Your task to perform on an android device: turn on improve location accuracy Image 0: 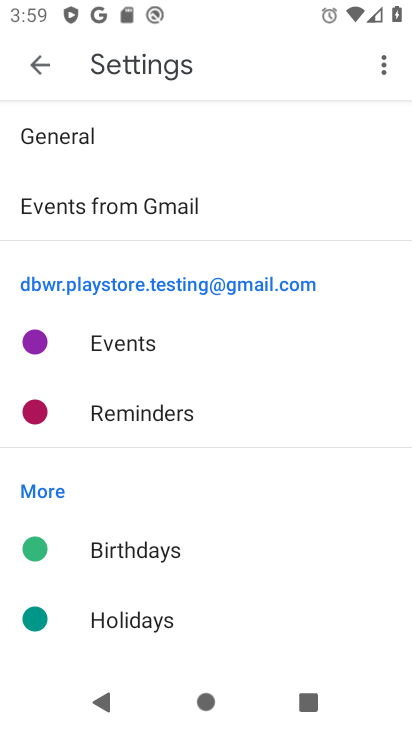
Step 0: press home button
Your task to perform on an android device: turn on improve location accuracy Image 1: 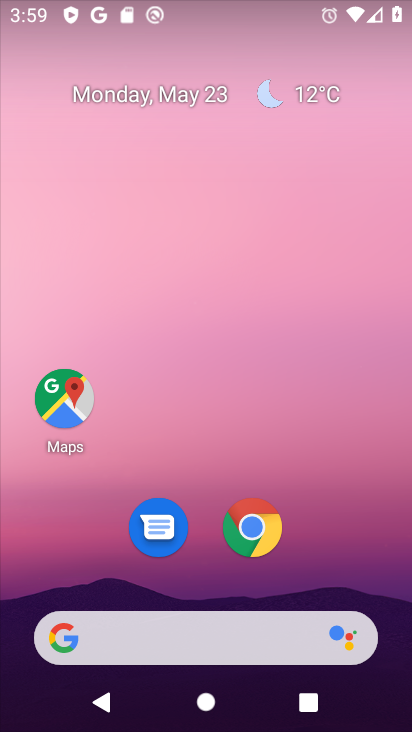
Step 1: drag from (216, 579) to (228, 92)
Your task to perform on an android device: turn on improve location accuracy Image 2: 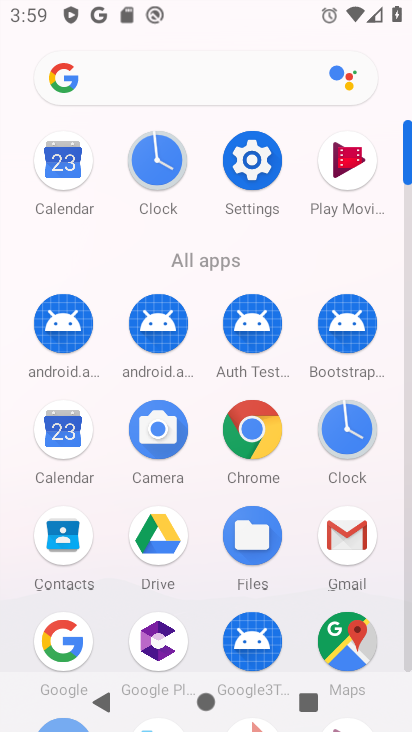
Step 2: drag from (207, 611) to (226, 102)
Your task to perform on an android device: turn on improve location accuracy Image 3: 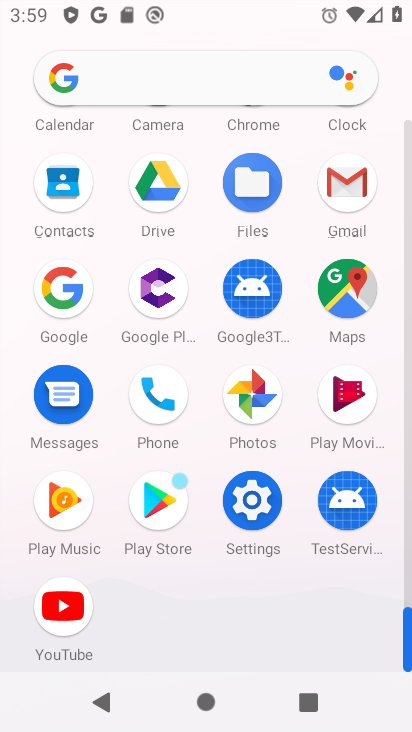
Step 3: click (247, 493)
Your task to perform on an android device: turn on improve location accuracy Image 4: 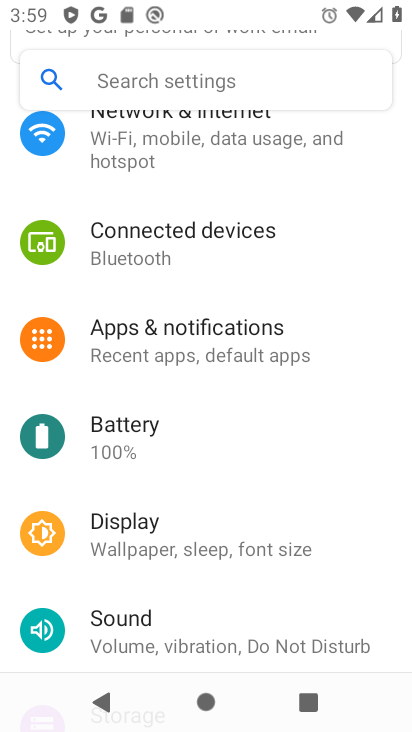
Step 4: drag from (198, 621) to (216, 296)
Your task to perform on an android device: turn on improve location accuracy Image 5: 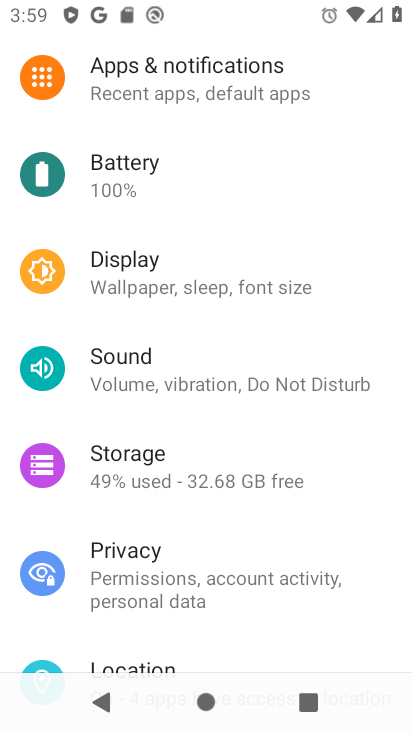
Step 5: click (198, 658)
Your task to perform on an android device: turn on improve location accuracy Image 6: 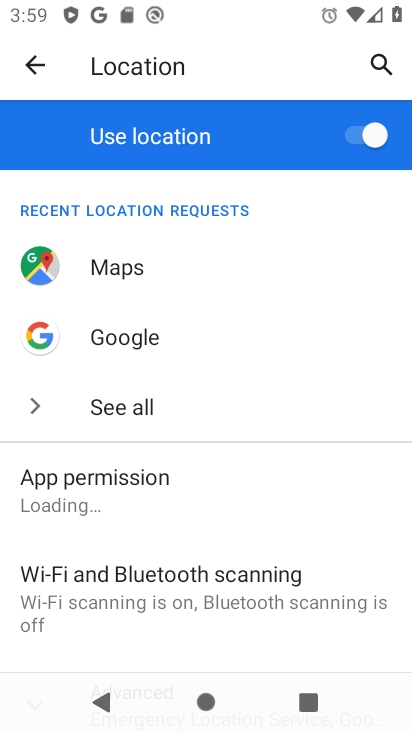
Step 6: drag from (224, 295) to (231, 103)
Your task to perform on an android device: turn on improve location accuracy Image 7: 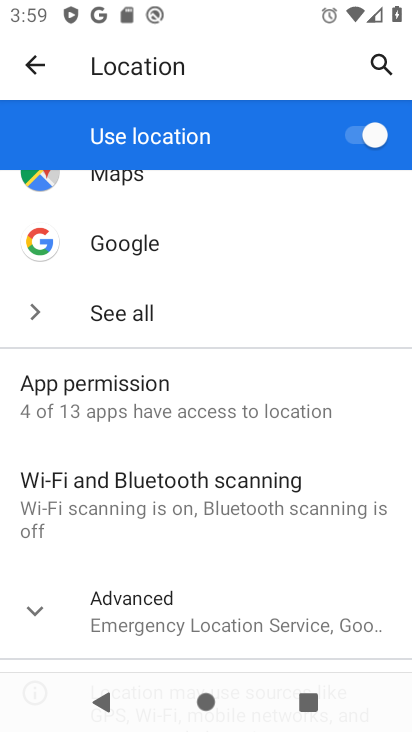
Step 7: click (41, 606)
Your task to perform on an android device: turn on improve location accuracy Image 8: 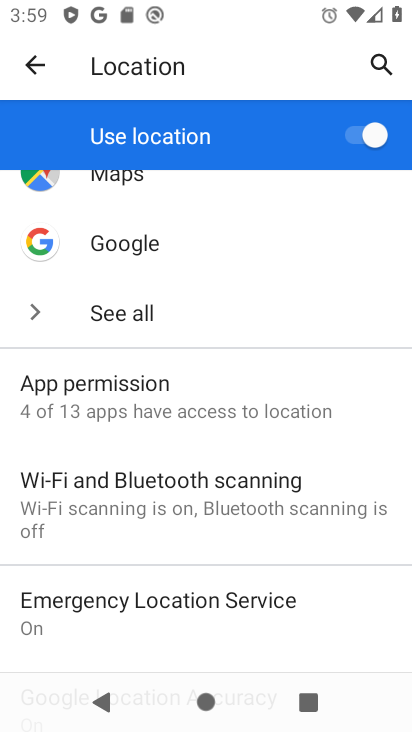
Step 8: drag from (191, 647) to (200, 245)
Your task to perform on an android device: turn on improve location accuracy Image 9: 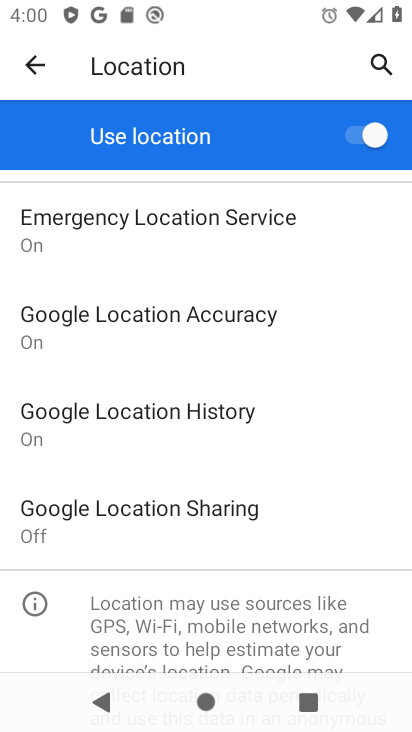
Step 9: click (90, 327)
Your task to perform on an android device: turn on improve location accuracy Image 10: 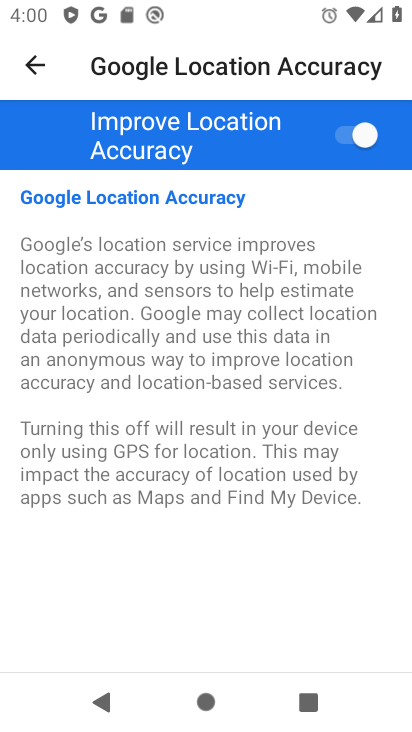
Step 10: task complete